Your task to perform on an android device: all mails in gmail Image 0: 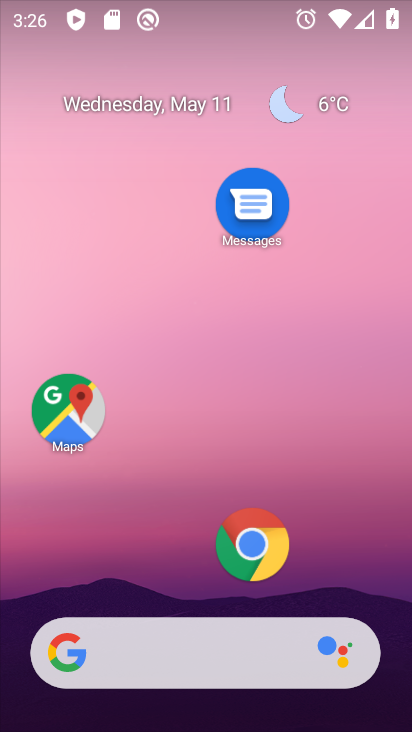
Step 0: drag from (167, 406) to (229, 34)
Your task to perform on an android device: all mails in gmail Image 1: 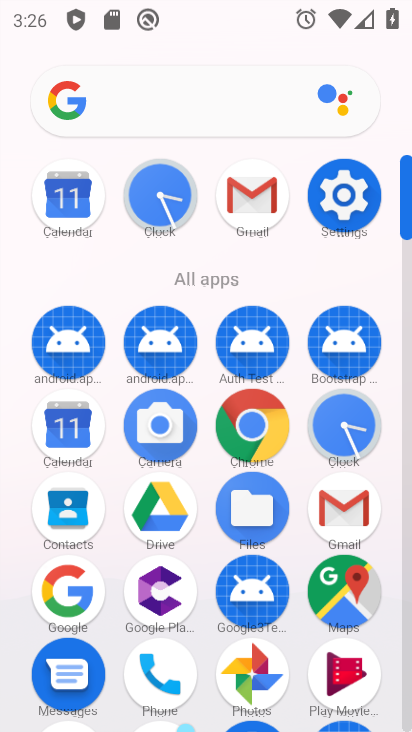
Step 1: click (246, 192)
Your task to perform on an android device: all mails in gmail Image 2: 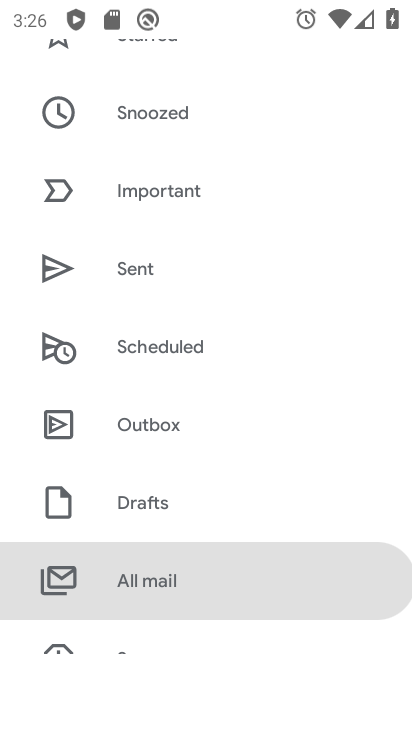
Step 2: click (144, 573)
Your task to perform on an android device: all mails in gmail Image 3: 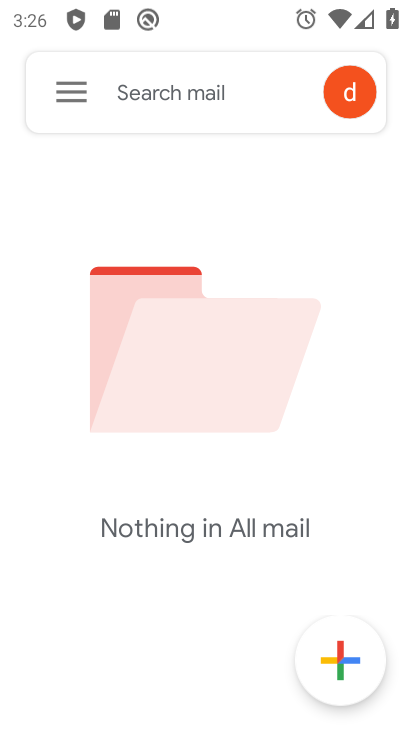
Step 3: task complete